Your task to perform on an android device: check out phone information Image 0: 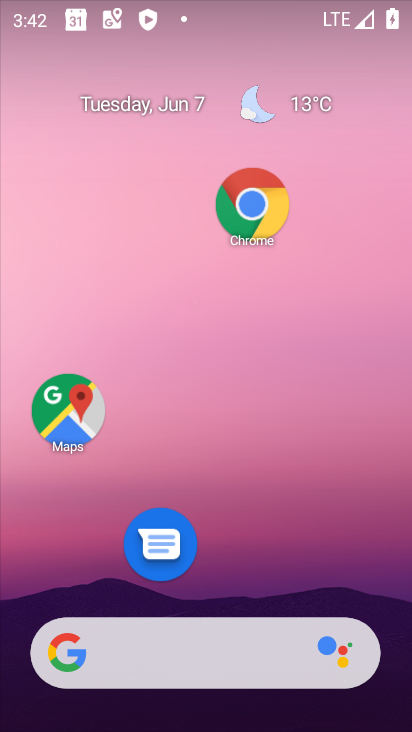
Step 0: drag from (227, 603) to (175, 7)
Your task to perform on an android device: check out phone information Image 1: 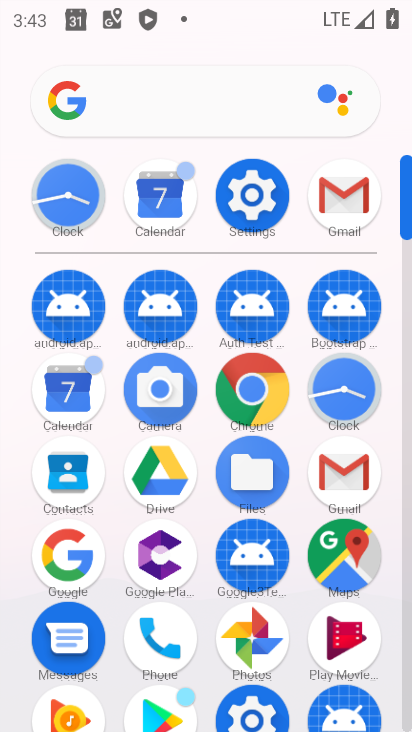
Step 1: click (248, 189)
Your task to perform on an android device: check out phone information Image 2: 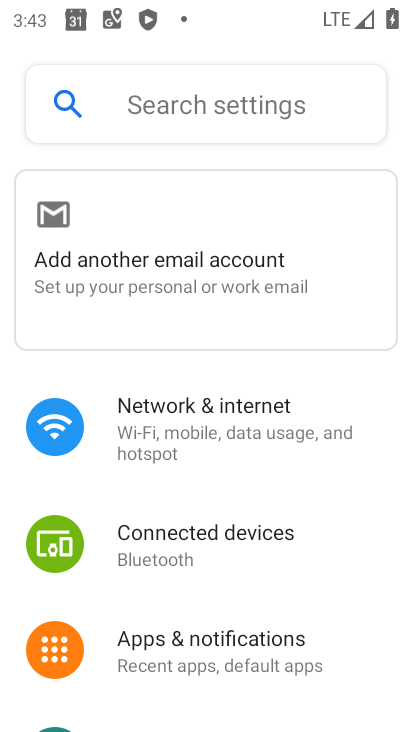
Step 2: drag from (218, 686) to (245, 165)
Your task to perform on an android device: check out phone information Image 3: 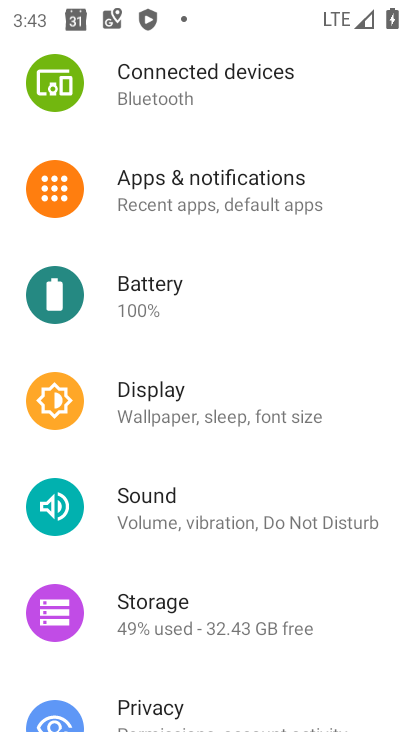
Step 3: drag from (220, 671) to (221, 60)
Your task to perform on an android device: check out phone information Image 4: 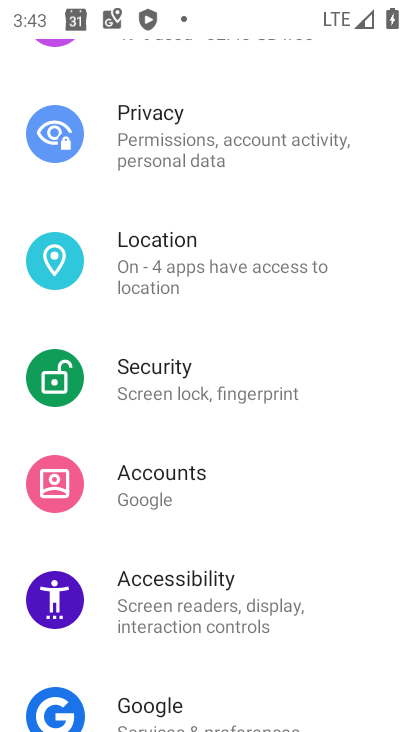
Step 4: drag from (211, 698) to (228, 158)
Your task to perform on an android device: check out phone information Image 5: 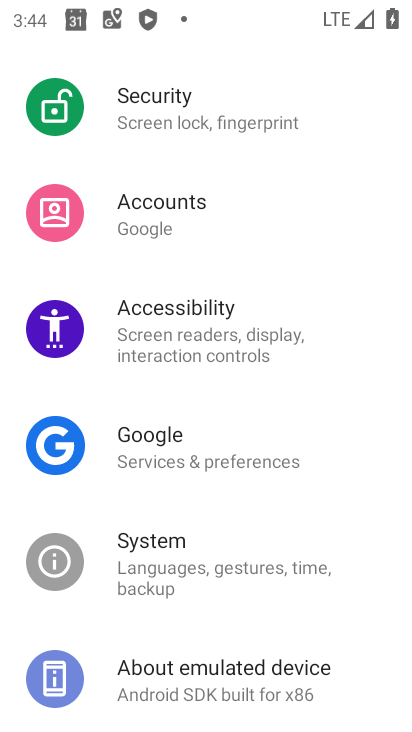
Step 5: click (293, 674)
Your task to perform on an android device: check out phone information Image 6: 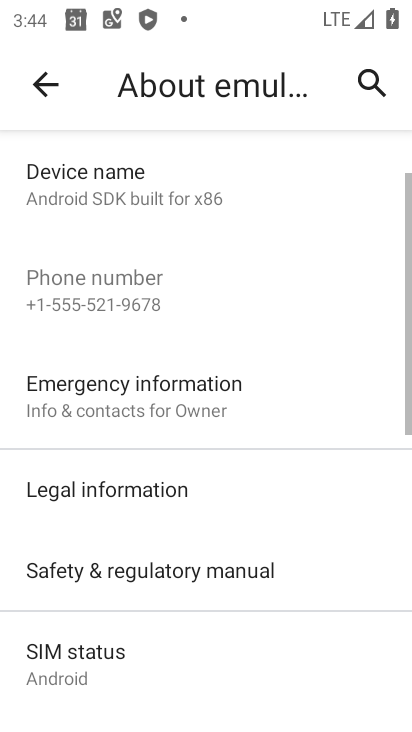
Step 6: task complete